Your task to perform on an android device: uninstall "Facebook" Image 0: 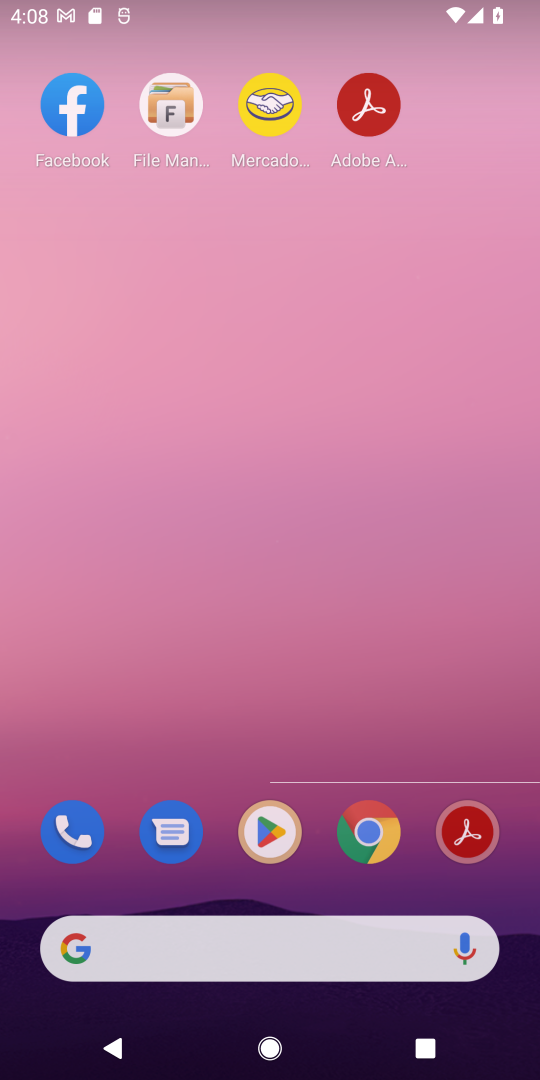
Step 0: press home button
Your task to perform on an android device: uninstall "Facebook" Image 1: 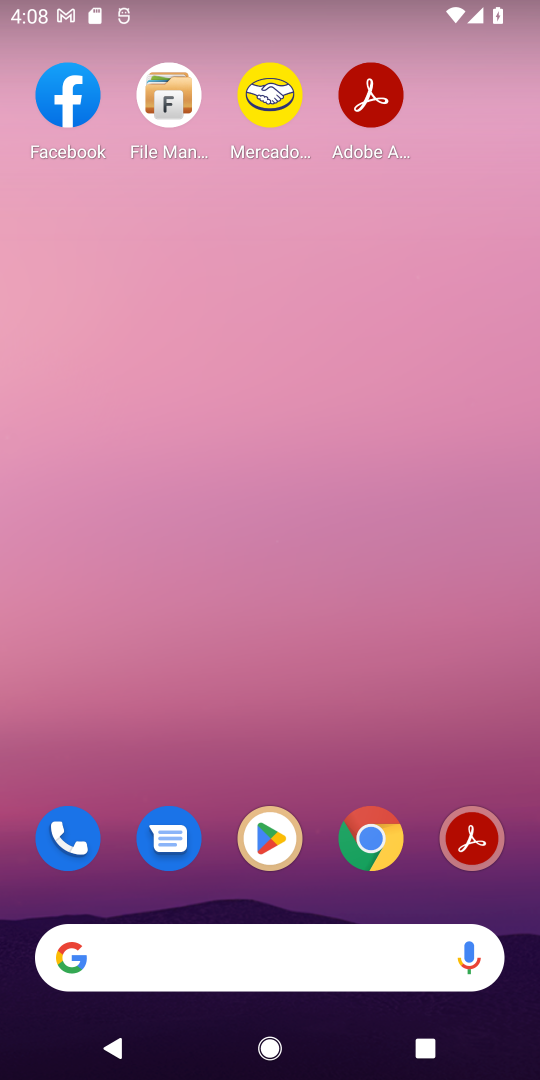
Step 1: click (268, 836)
Your task to perform on an android device: uninstall "Facebook" Image 2: 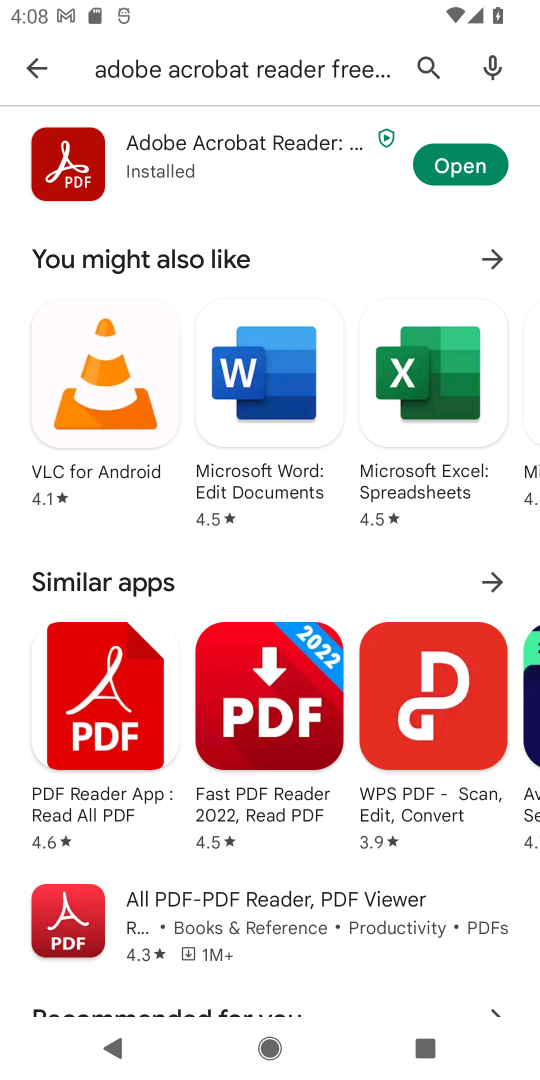
Step 2: click (427, 65)
Your task to perform on an android device: uninstall "Facebook" Image 3: 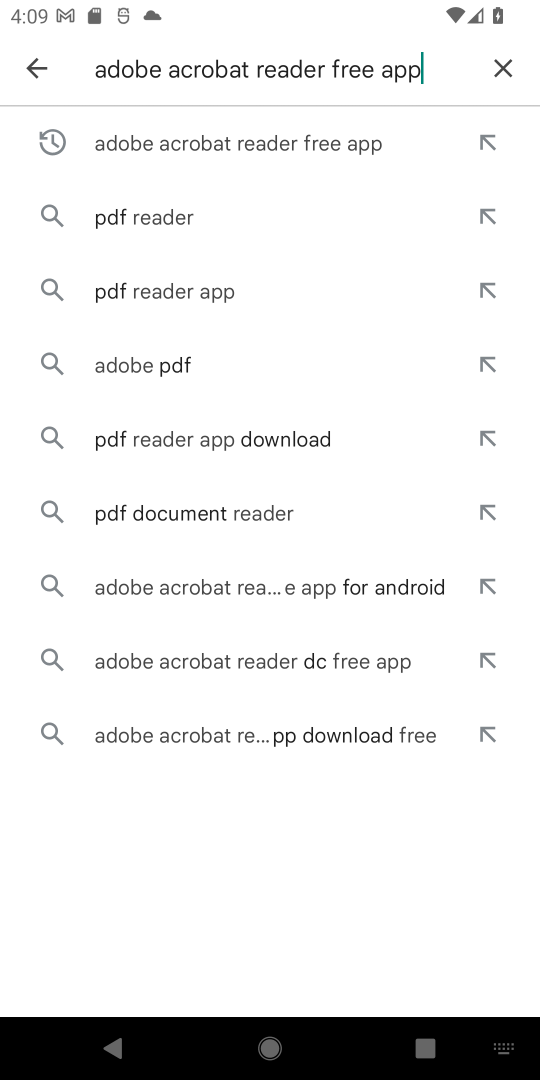
Step 3: click (509, 67)
Your task to perform on an android device: uninstall "Facebook" Image 4: 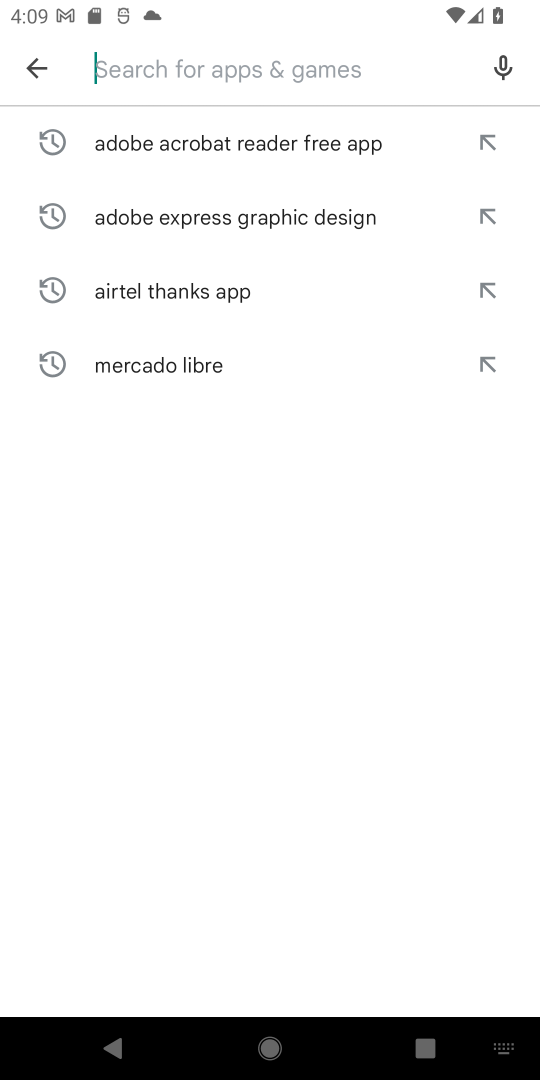
Step 4: type "Facebook"
Your task to perform on an android device: uninstall "Facebook" Image 5: 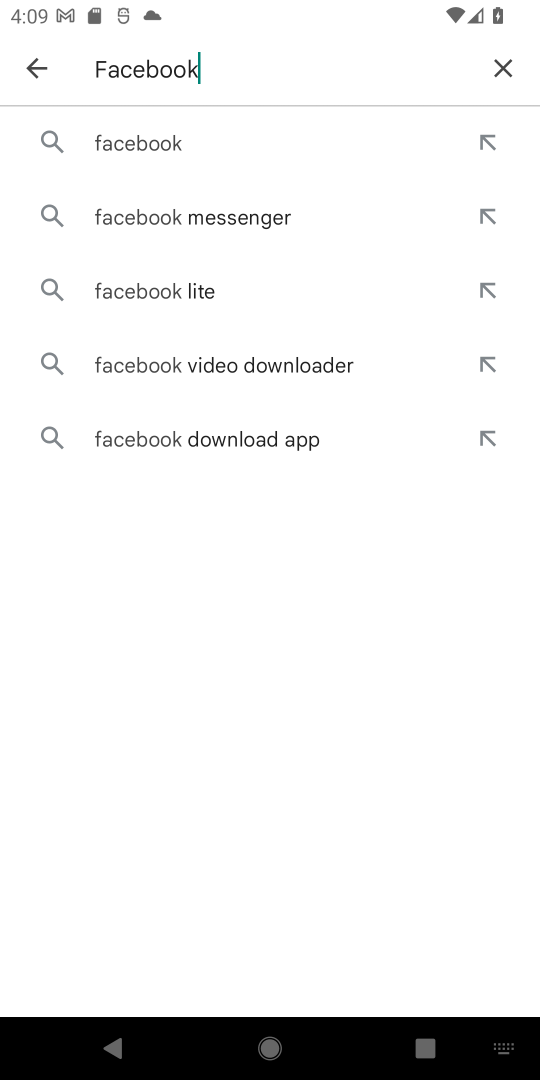
Step 5: click (192, 145)
Your task to perform on an android device: uninstall "Facebook" Image 6: 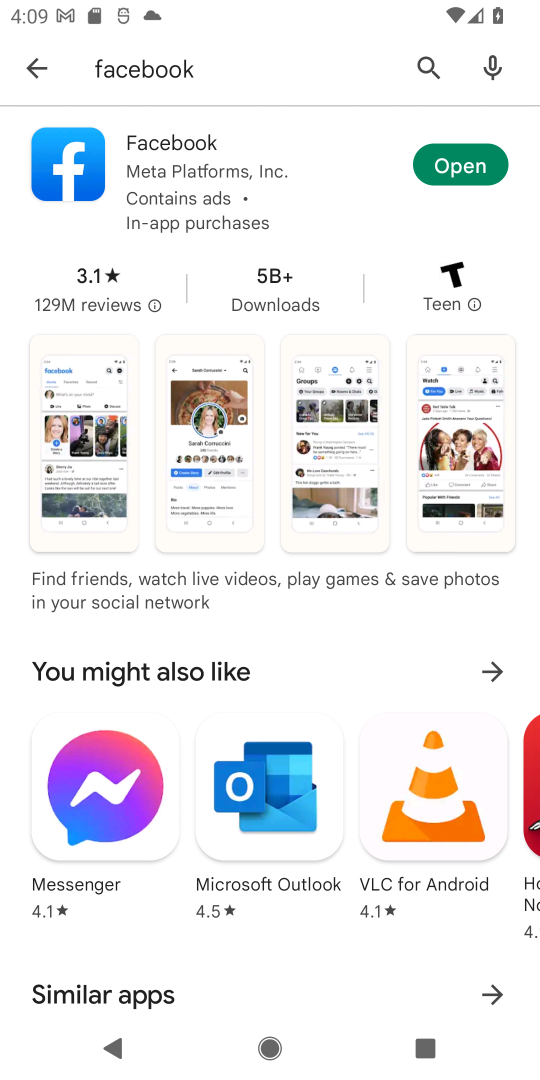
Step 6: task complete